Your task to perform on an android device: open app "Microsoft Excel" (install if not already installed) and go to login screen Image 0: 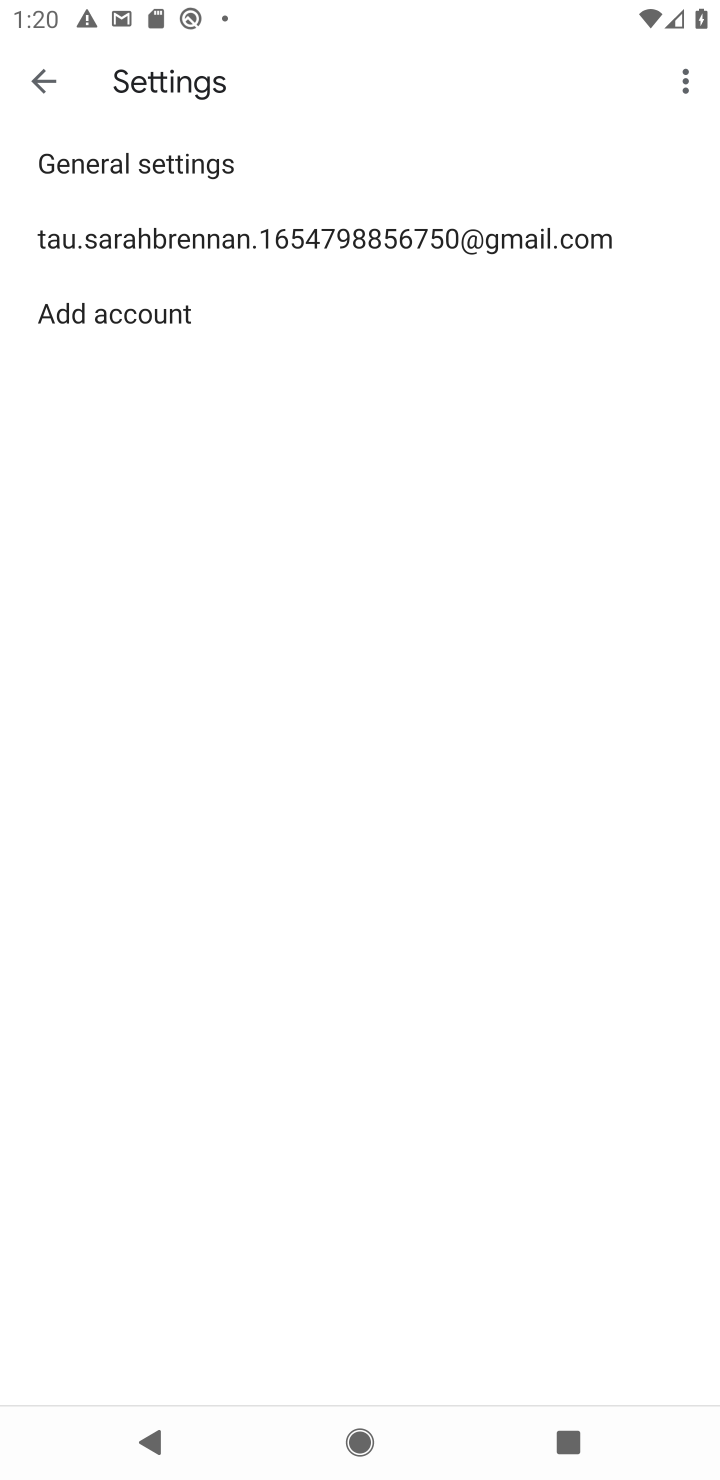
Step 0: press home button
Your task to perform on an android device: open app "Microsoft Excel" (install if not already installed) and go to login screen Image 1: 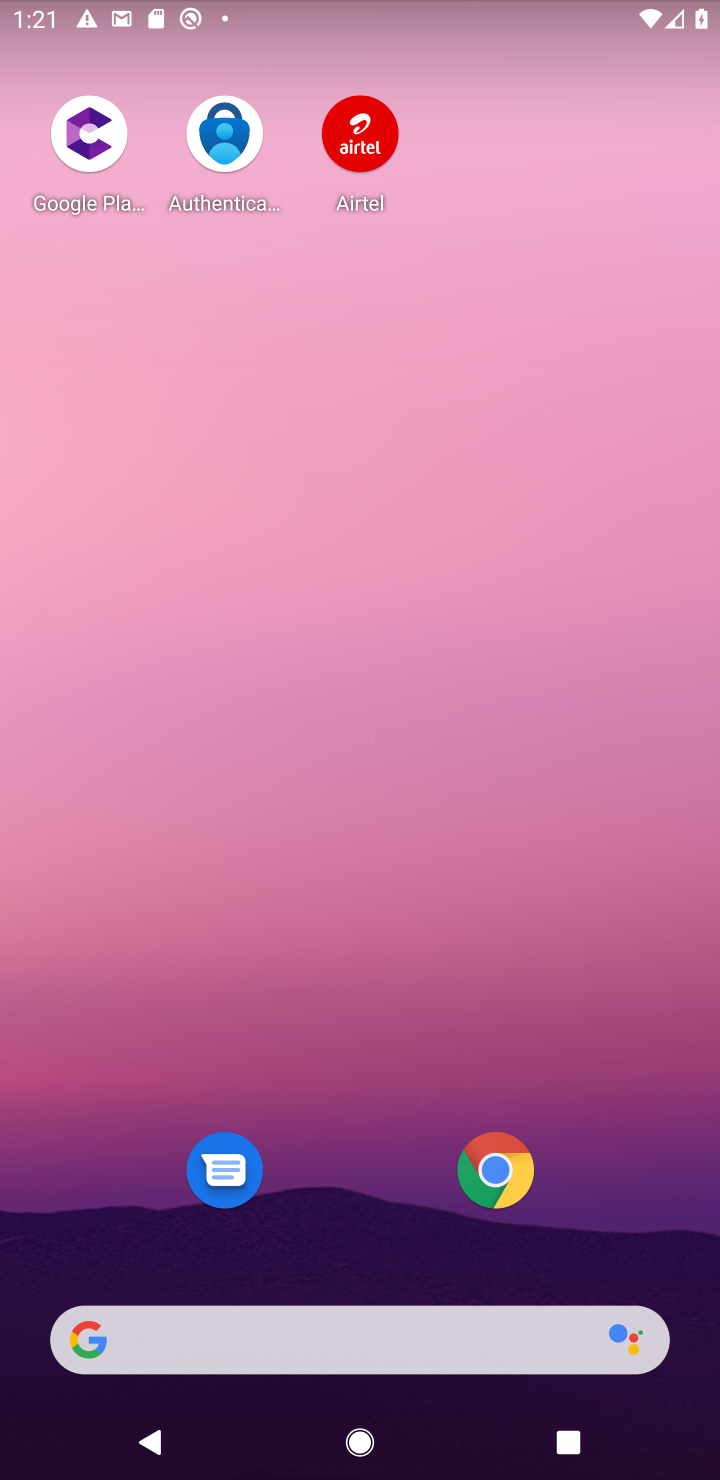
Step 1: drag from (334, 1048) to (444, 257)
Your task to perform on an android device: open app "Microsoft Excel" (install if not already installed) and go to login screen Image 2: 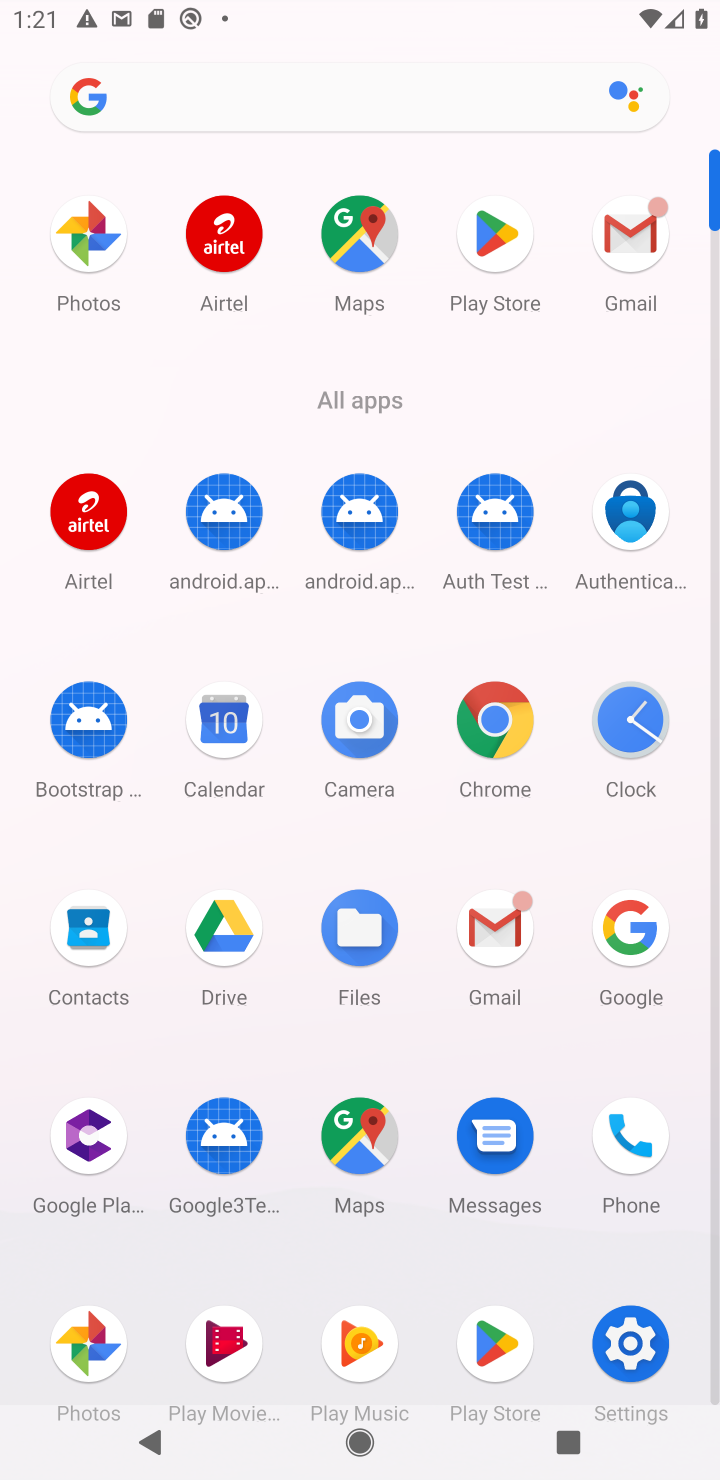
Step 2: click (493, 232)
Your task to perform on an android device: open app "Microsoft Excel" (install if not already installed) and go to login screen Image 3: 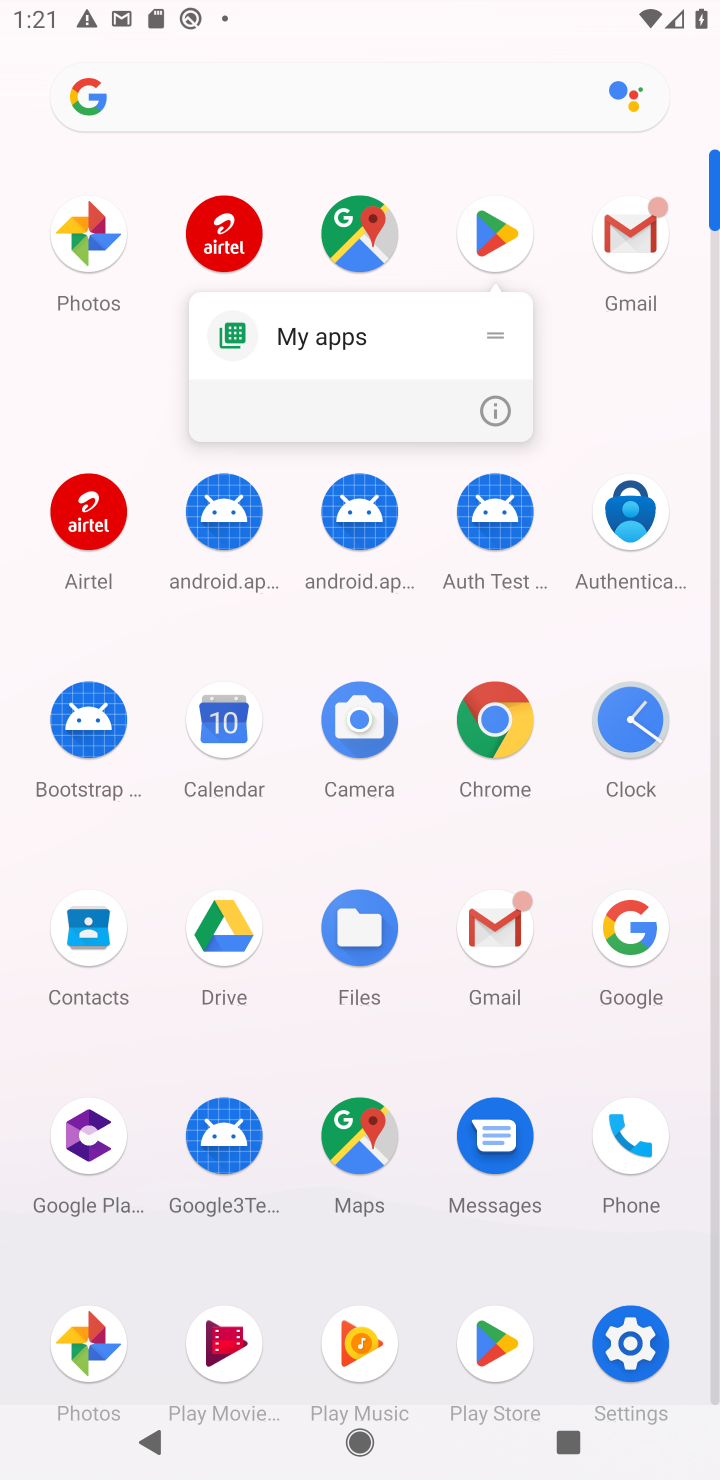
Step 3: click (489, 238)
Your task to perform on an android device: open app "Microsoft Excel" (install if not already installed) and go to login screen Image 4: 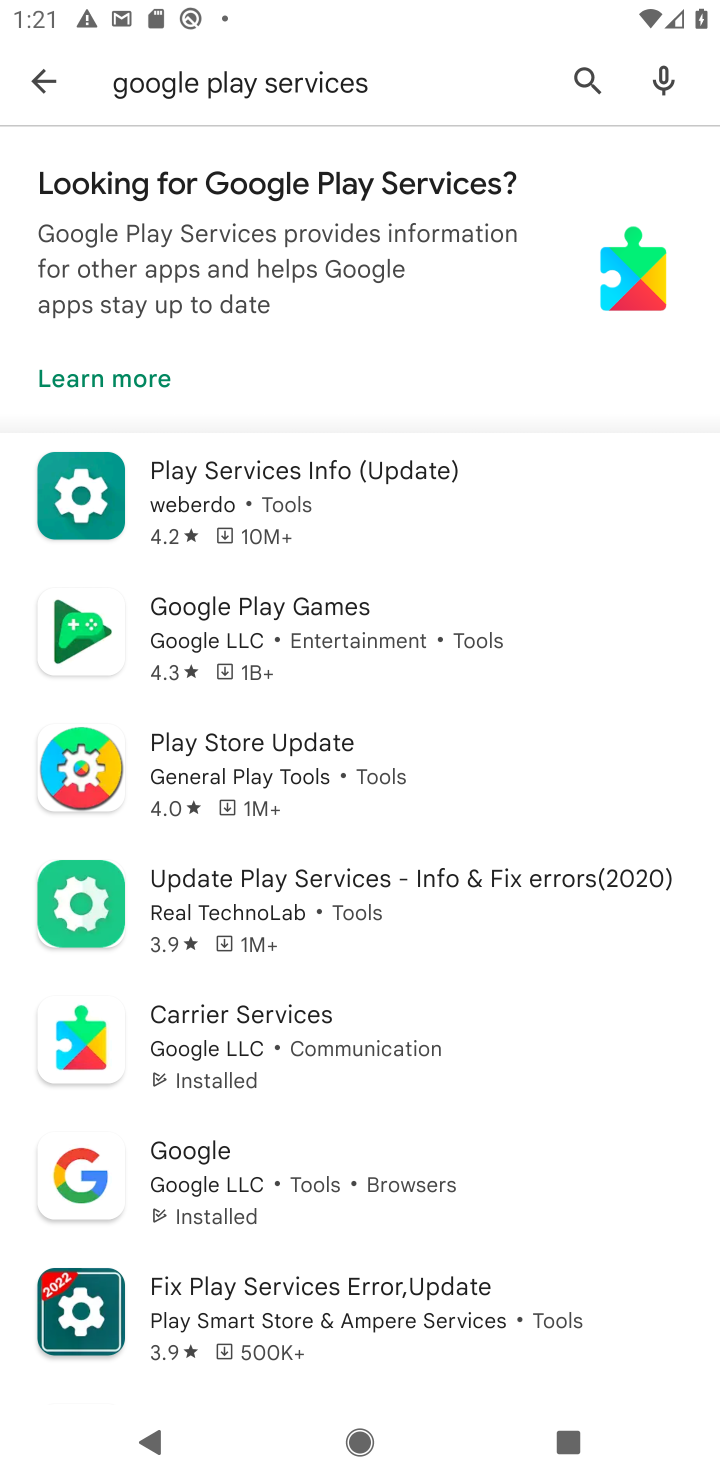
Step 4: click (596, 68)
Your task to perform on an android device: open app "Microsoft Excel" (install if not already installed) and go to login screen Image 5: 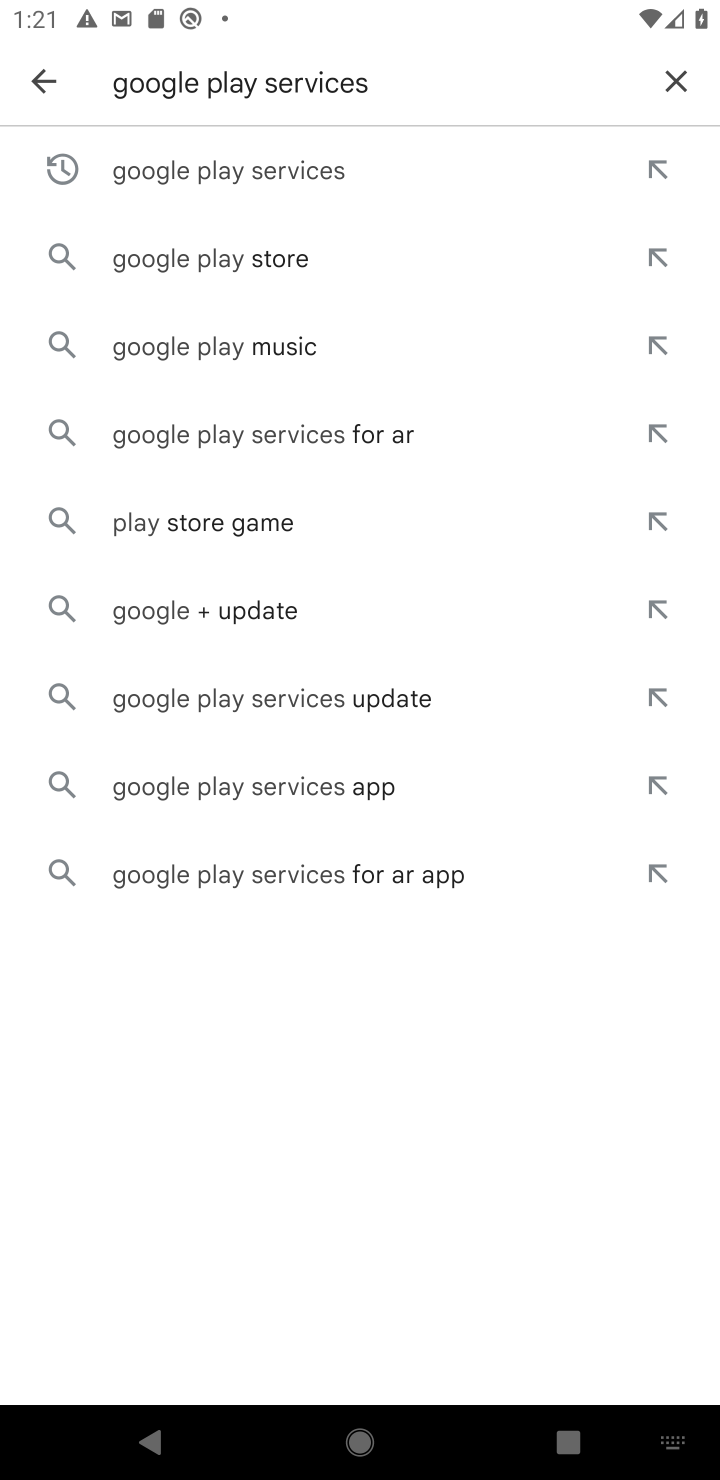
Step 5: click (676, 82)
Your task to perform on an android device: open app "Microsoft Excel" (install if not already installed) and go to login screen Image 6: 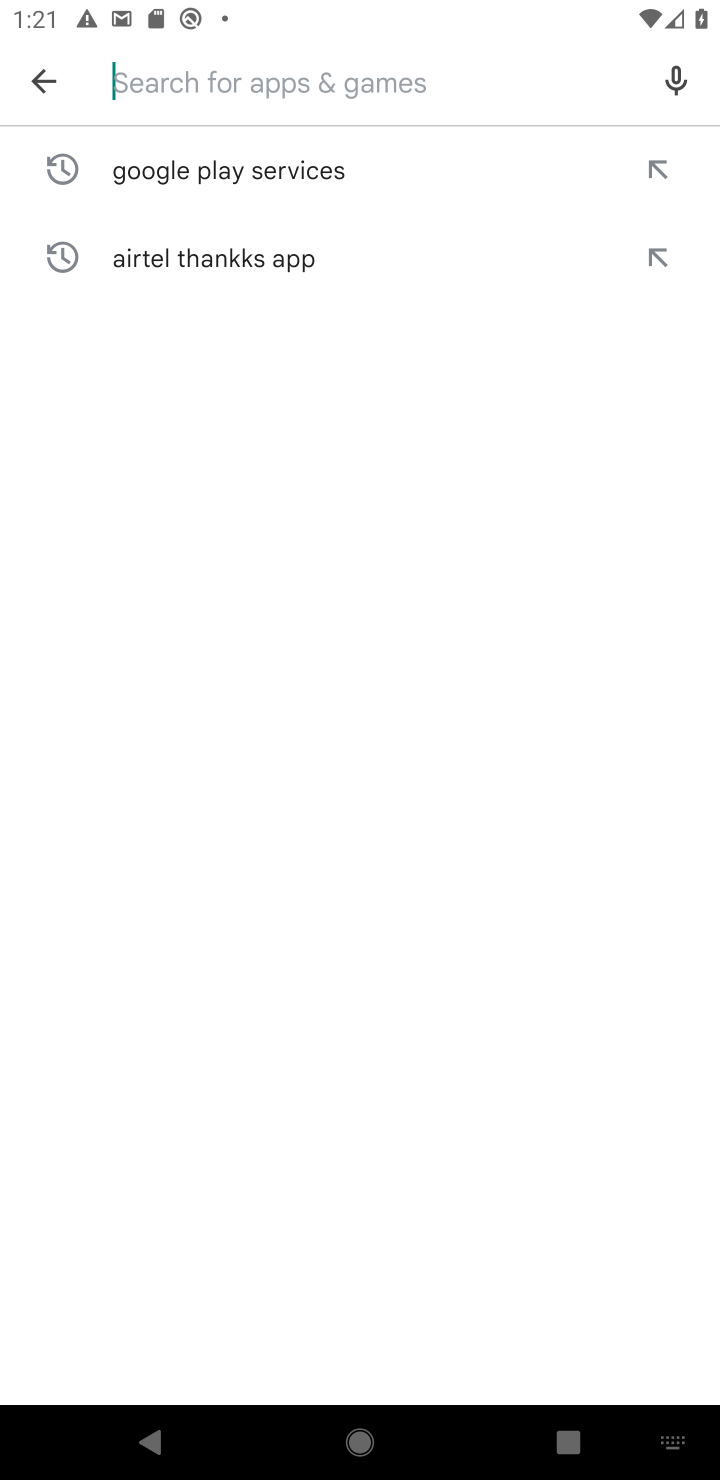
Step 6: type "Microsoft Excel"
Your task to perform on an android device: open app "Microsoft Excel" (install if not already installed) and go to login screen Image 7: 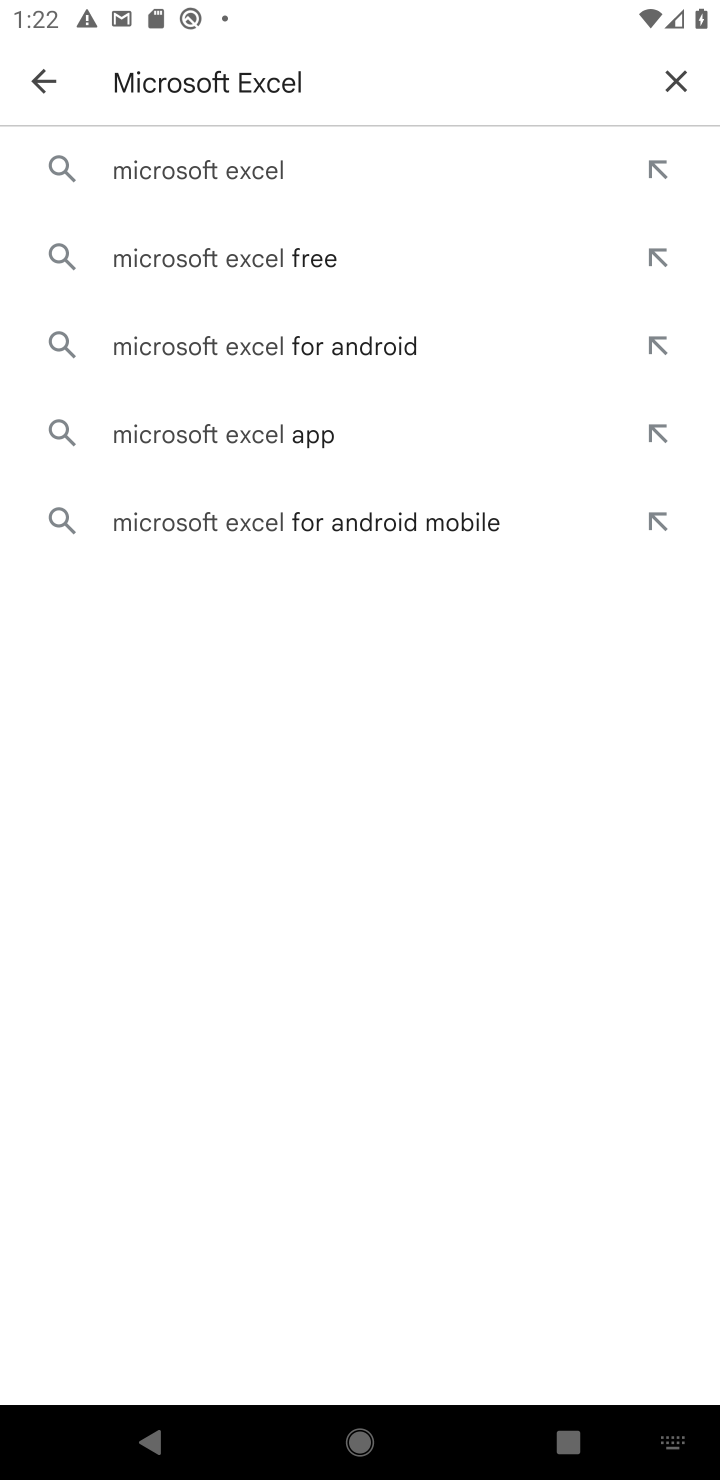
Step 7: click (206, 170)
Your task to perform on an android device: open app "Microsoft Excel" (install if not already installed) and go to login screen Image 8: 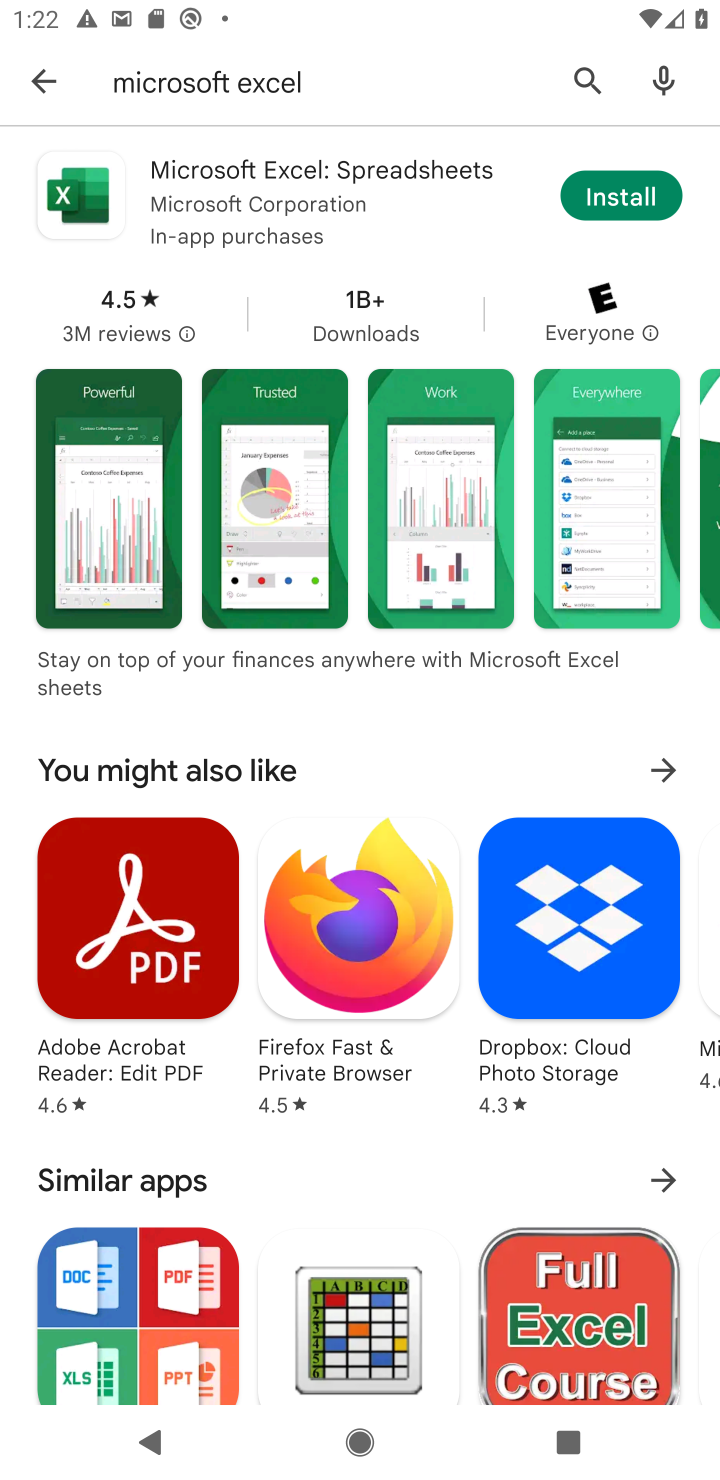
Step 8: click (602, 211)
Your task to perform on an android device: open app "Microsoft Excel" (install if not already installed) and go to login screen Image 9: 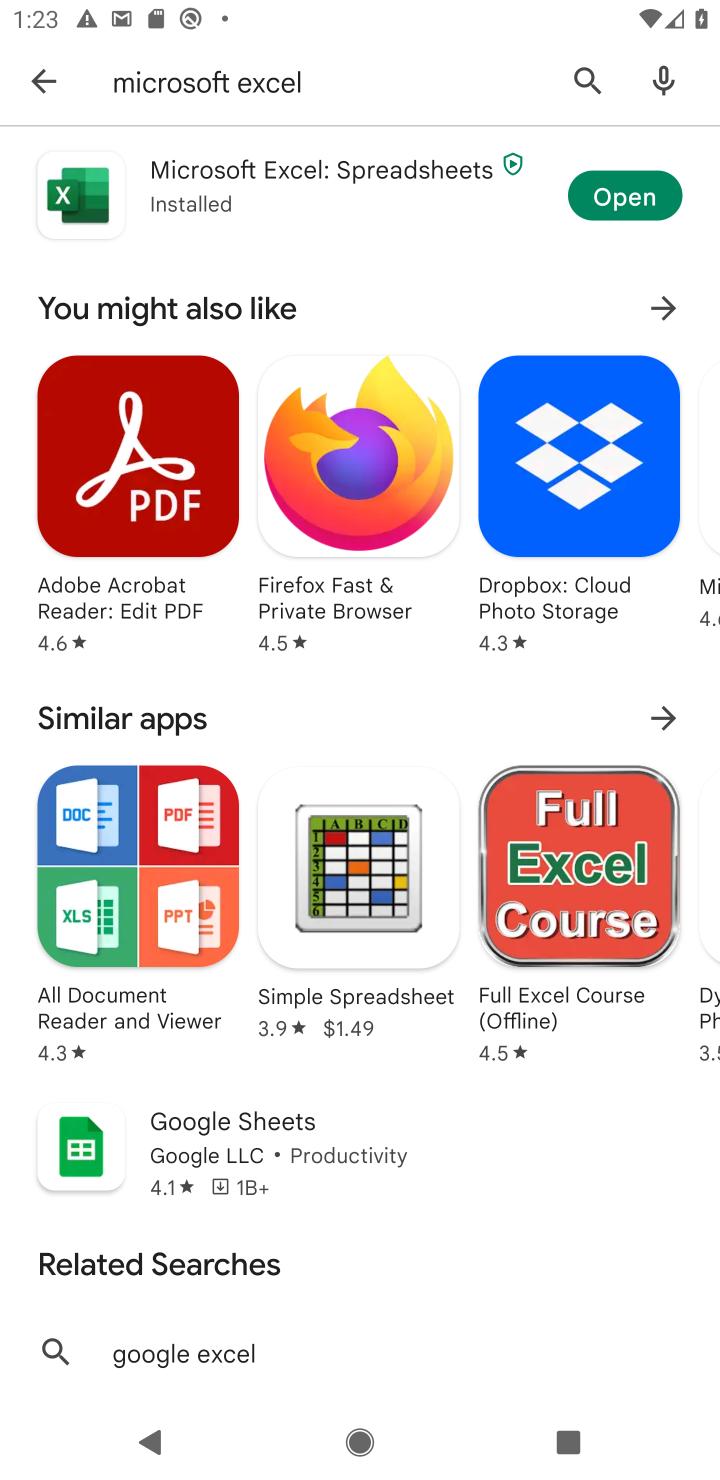
Step 9: click (613, 206)
Your task to perform on an android device: open app "Microsoft Excel" (install if not already installed) and go to login screen Image 10: 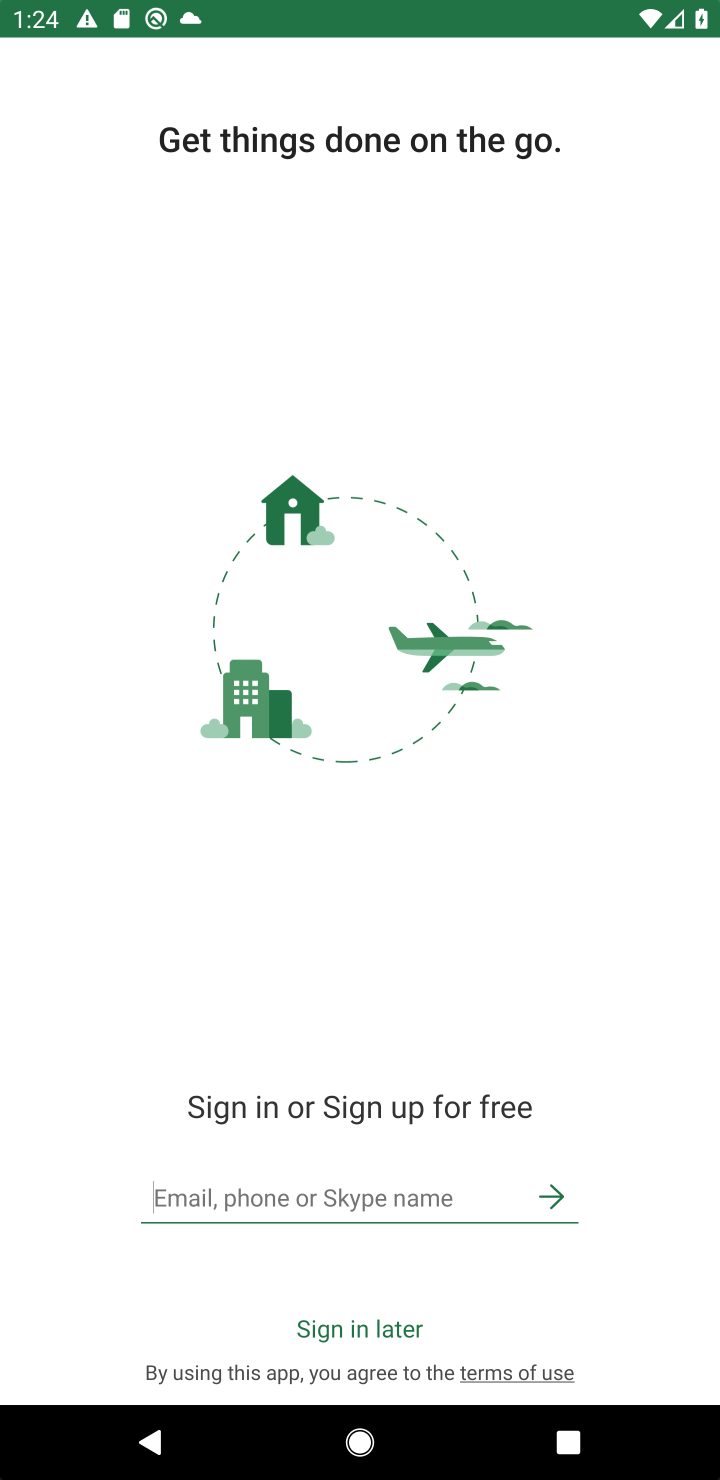
Step 10: task complete